Your task to perform on an android device: all mails in gmail Image 0: 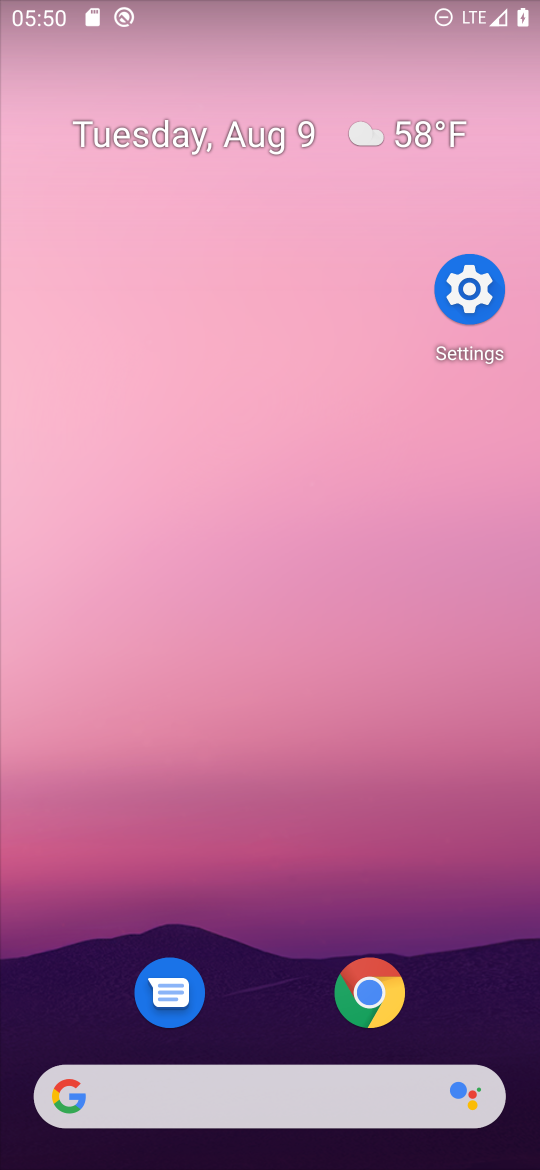
Step 0: drag from (377, 1116) to (362, 12)
Your task to perform on an android device: all mails in gmail Image 1: 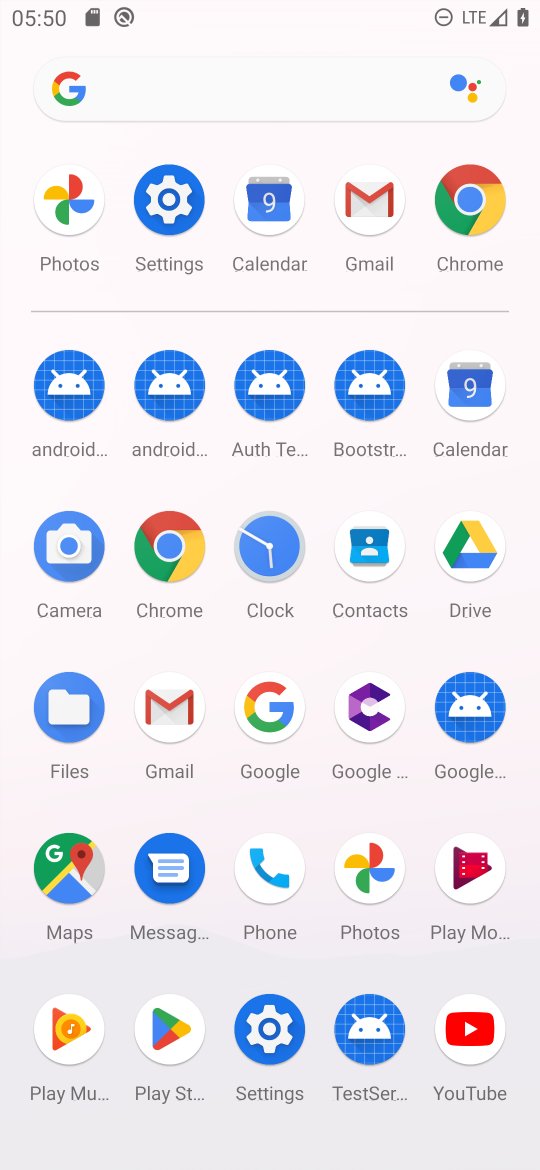
Step 1: click (177, 756)
Your task to perform on an android device: all mails in gmail Image 2: 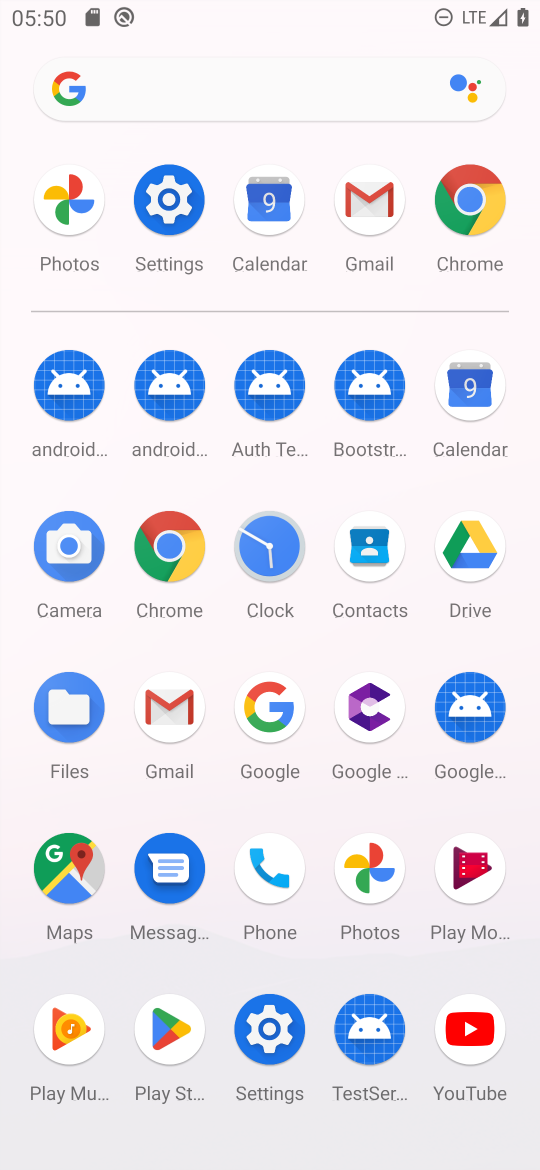
Step 2: click (177, 756)
Your task to perform on an android device: all mails in gmail Image 3: 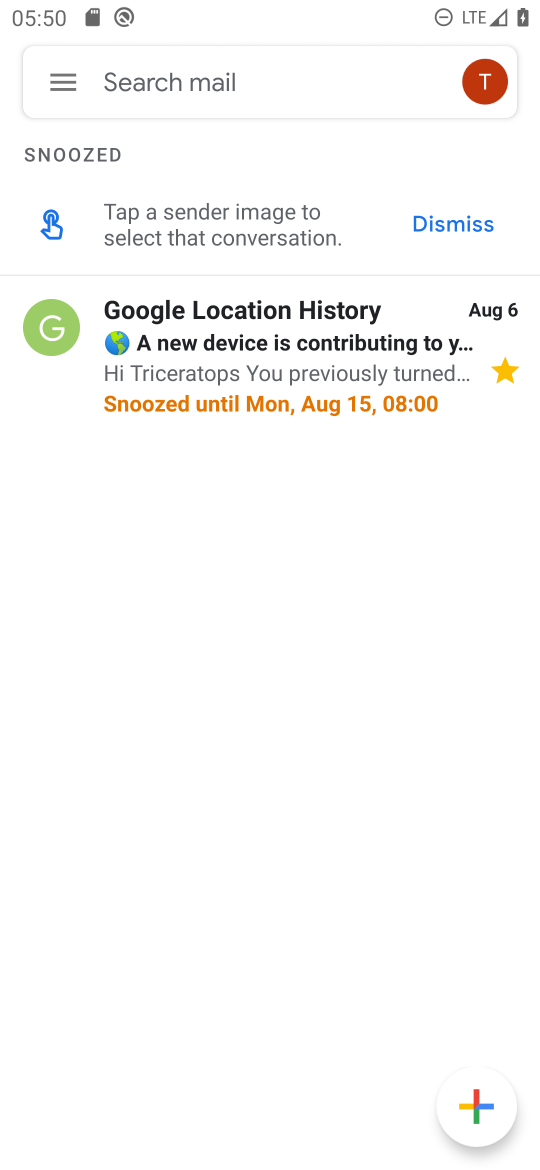
Step 3: click (64, 77)
Your task to perform on an android device: all mails in gmail Image 4: 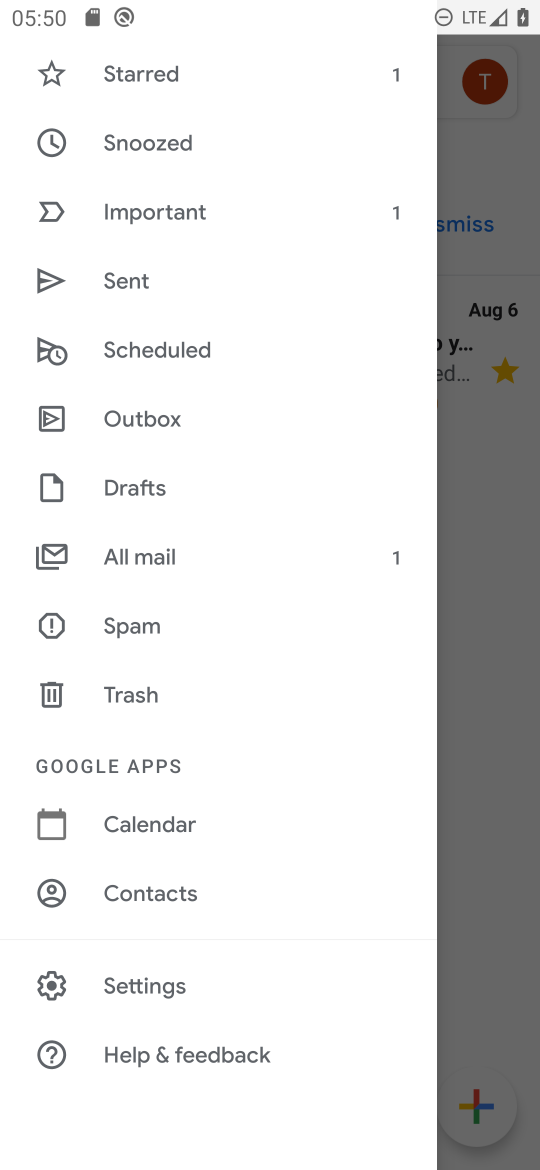
Step 4: click (160, 557)
Your task to perform on an android device: all mails in gmail Image 5: 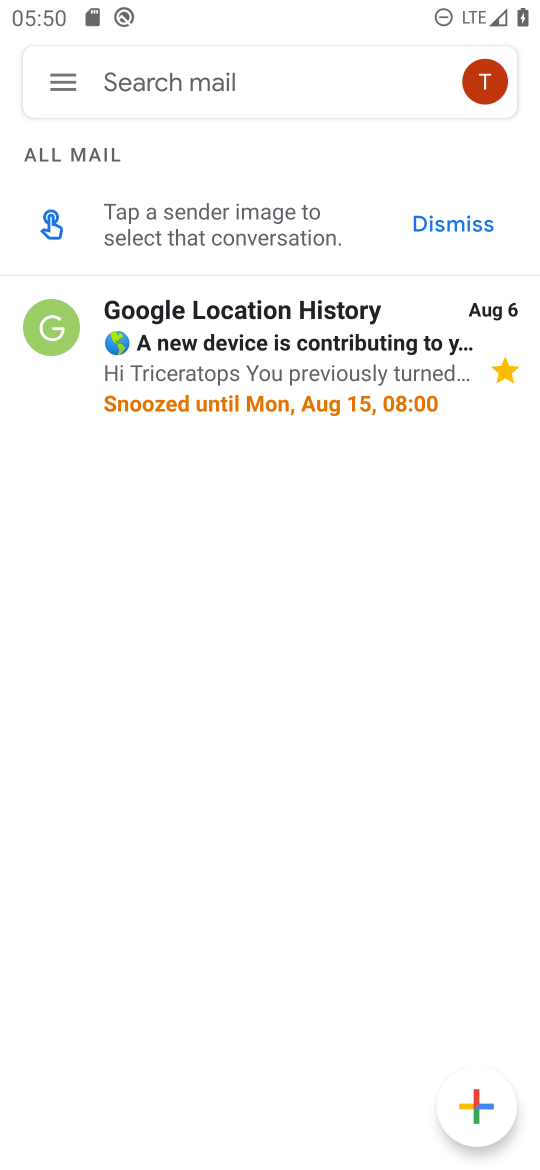
Step 5: task complete